Your task to perform on an android device: install app "Upside-Cash back on gas & food" Image 0: 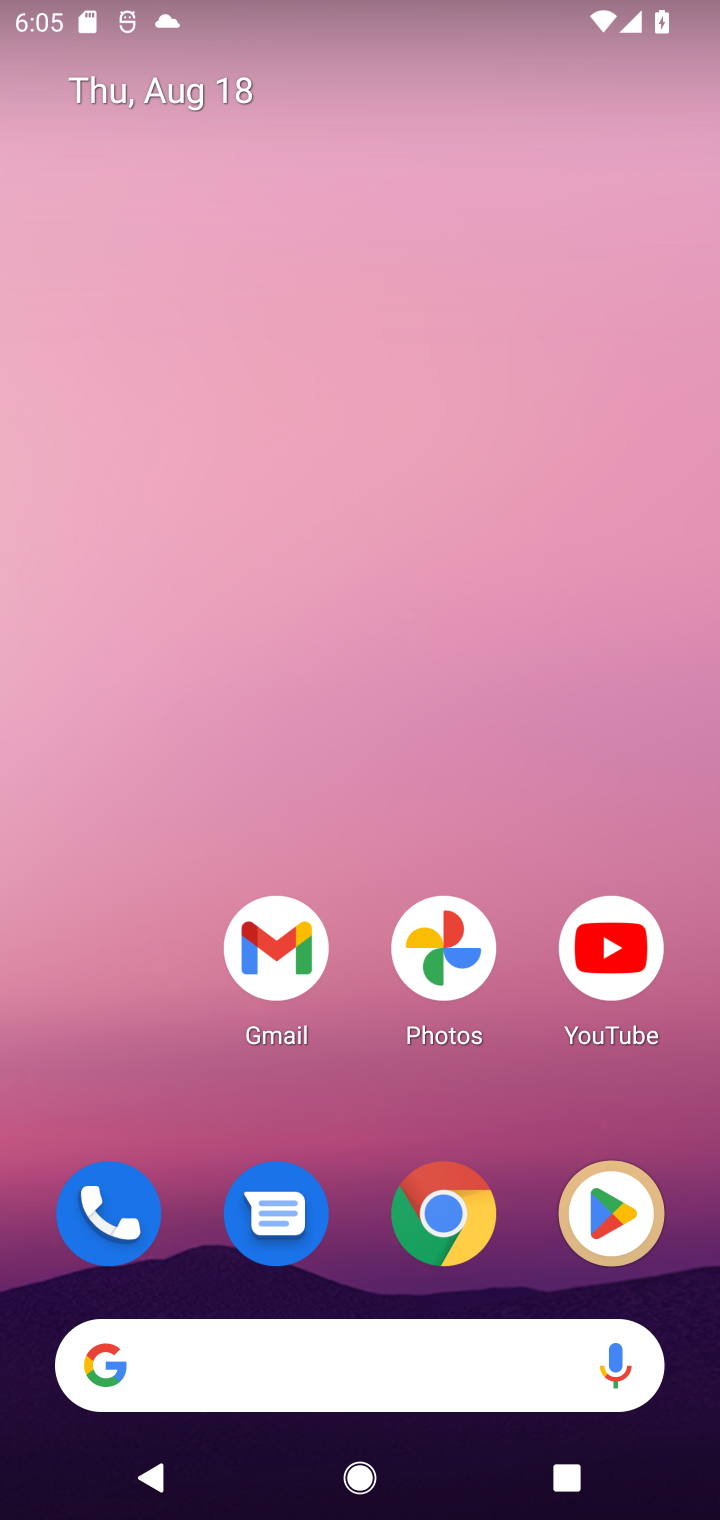
Step 0: press home button
Your task to perform on an android device: install app "Upside-Cash back on gas & food" Image 1: 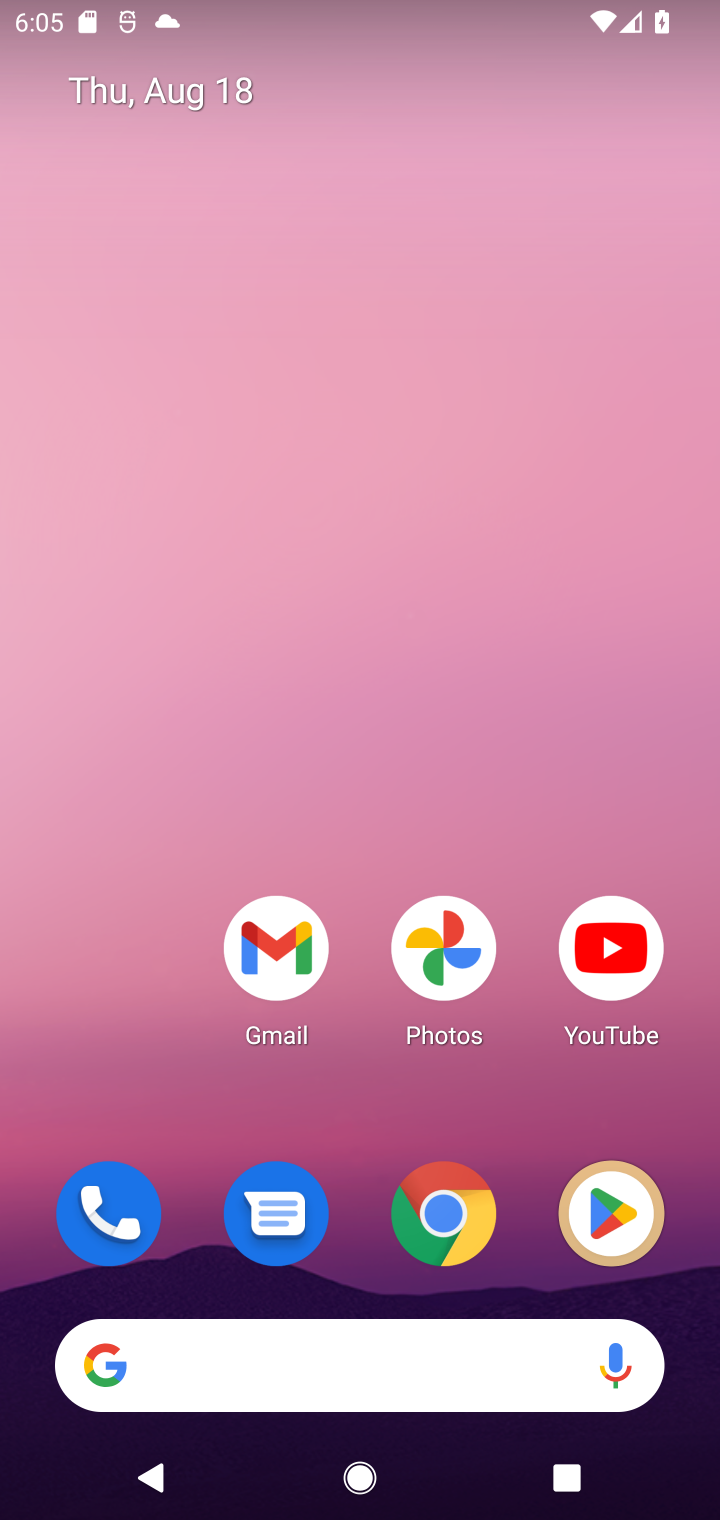
Step 1: click (606, 1201)
Your task to perform on an android device: install app "Upside-Cash back on gas & food" Image 2: 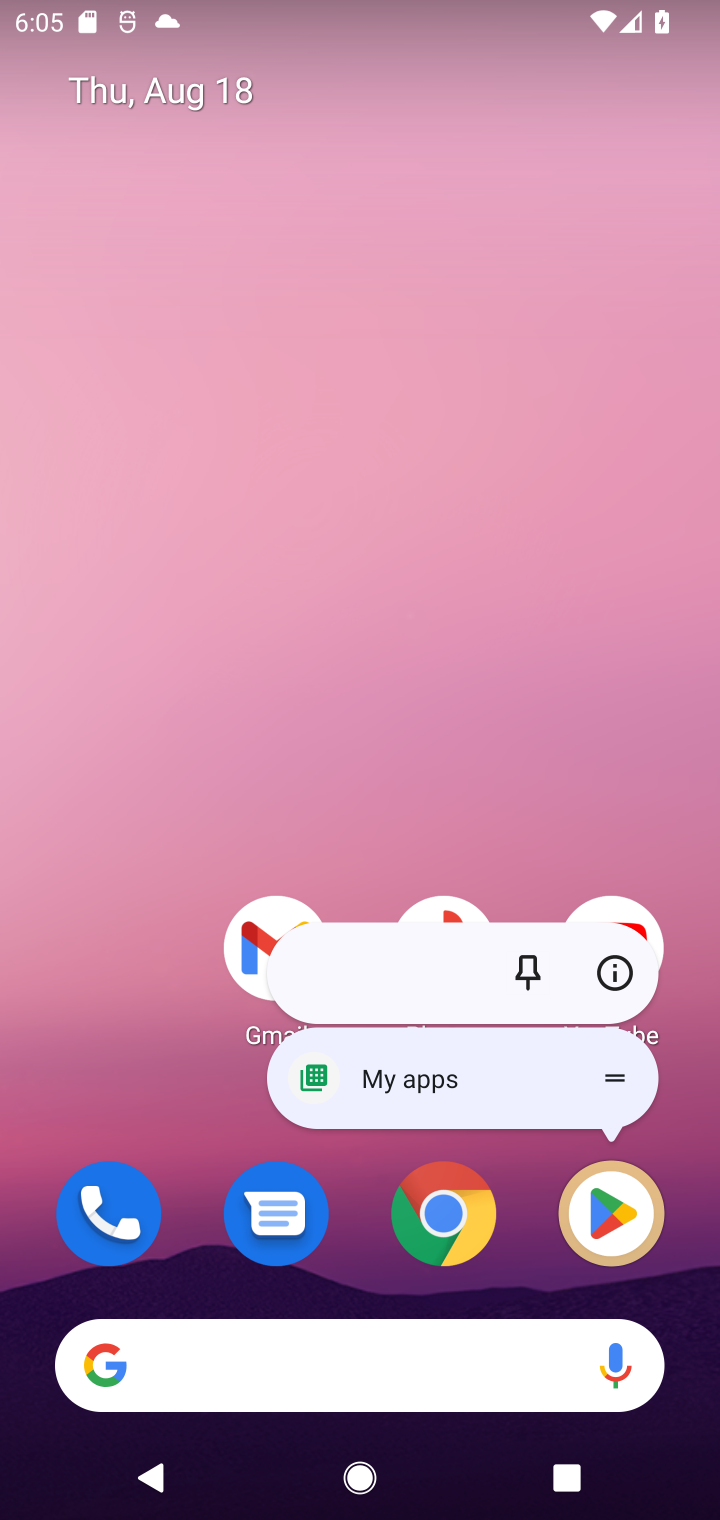
Step 2: click (610, 1212)
Your task to perform on an android device: install app "Upside-Cash back on gas & food" Image 3: 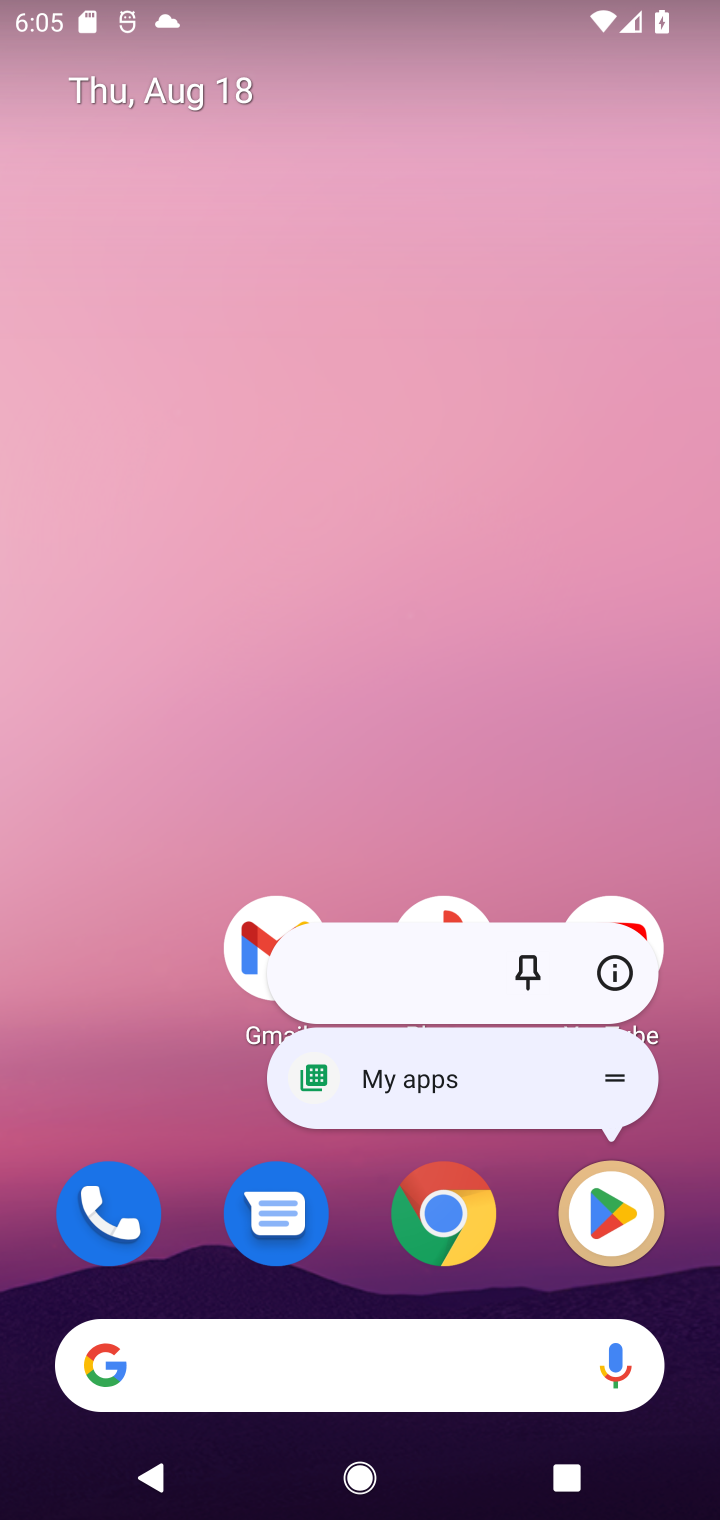
Step 3: click (603, 1203)
Your task to perform on an android device: install app "Upside-Cash back on gas & food" Image 4: 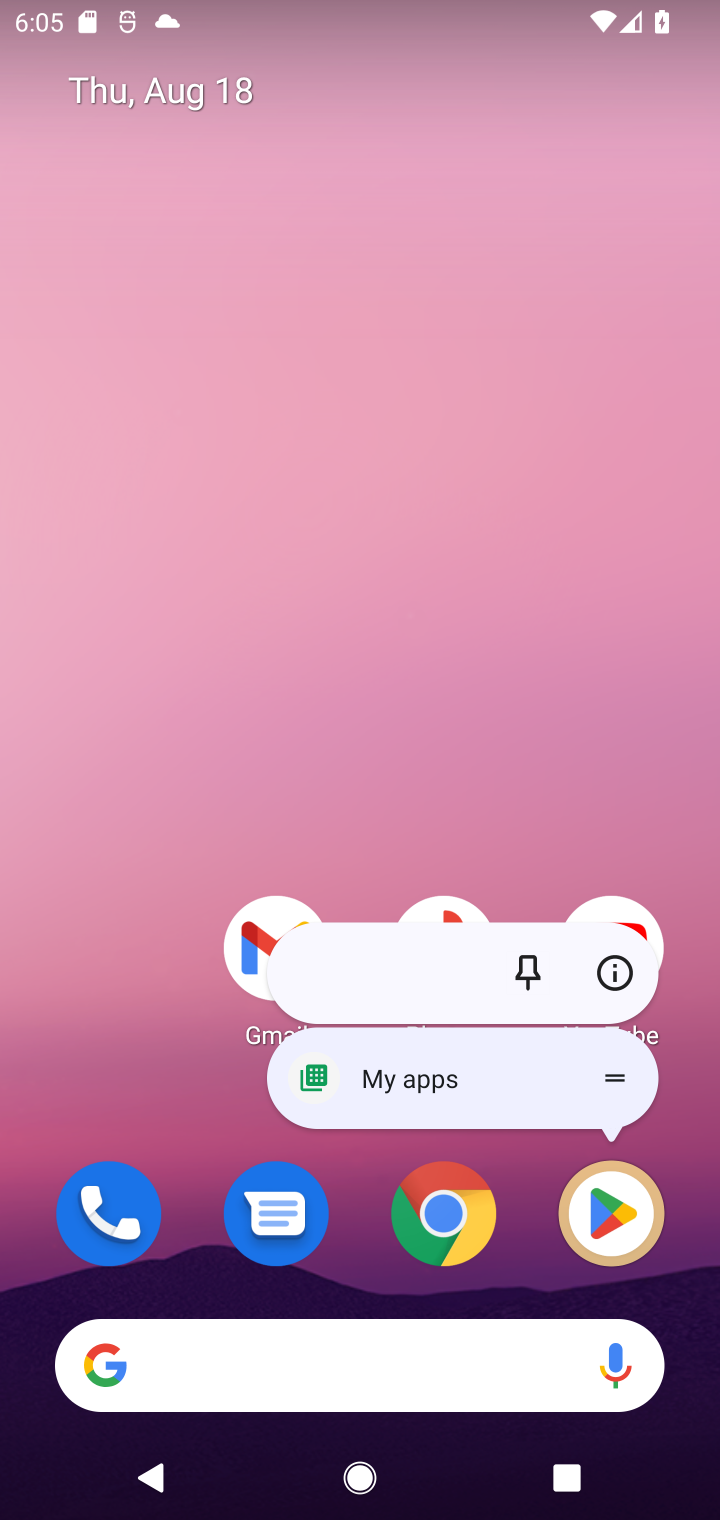
Step 4: click (618, 597)
Your task to perform on an android device: install app "Upside-Cash back on gas & food" Image 5: 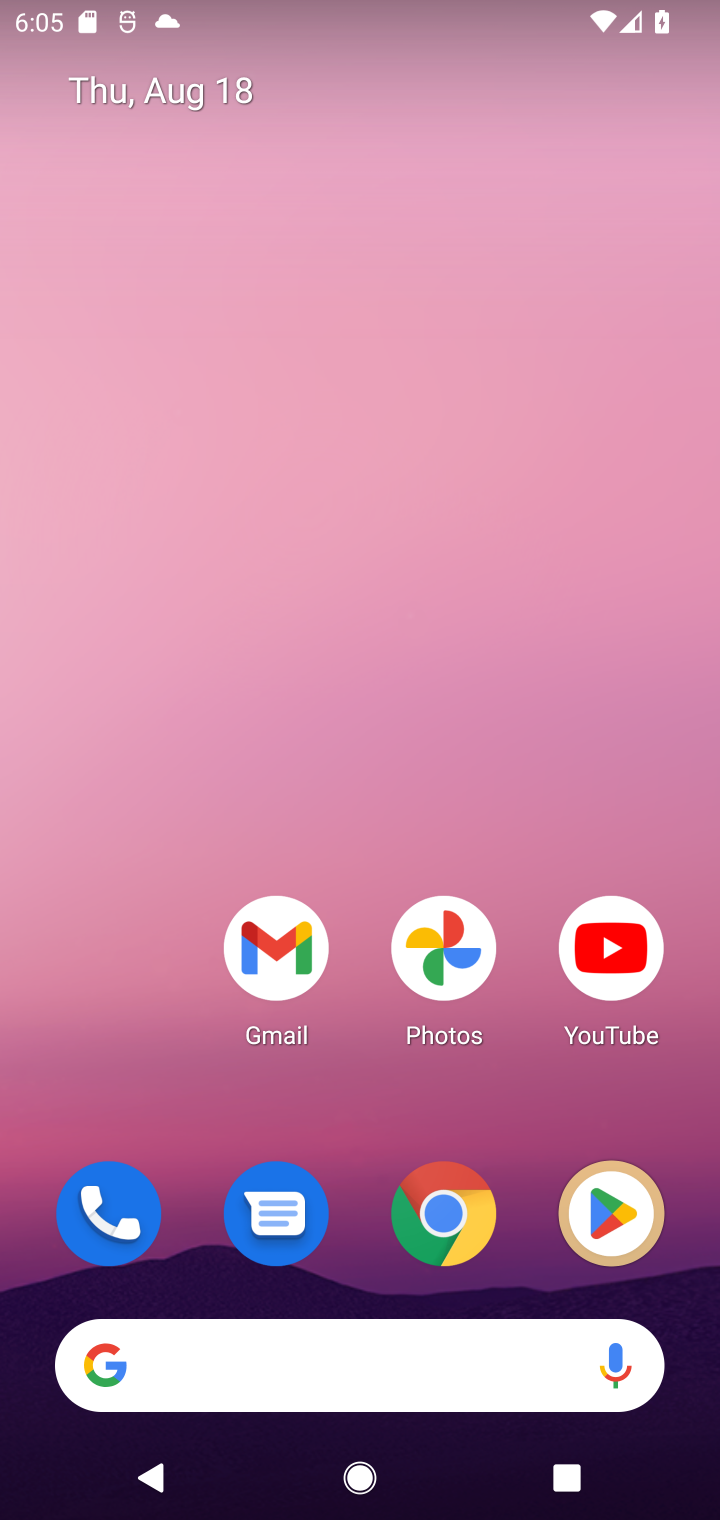
Step 5: drag from (162, 1097) to (108, 163)
Your task to perform on an android device: install app "Upside-Cash back on gas & food" Image 6: 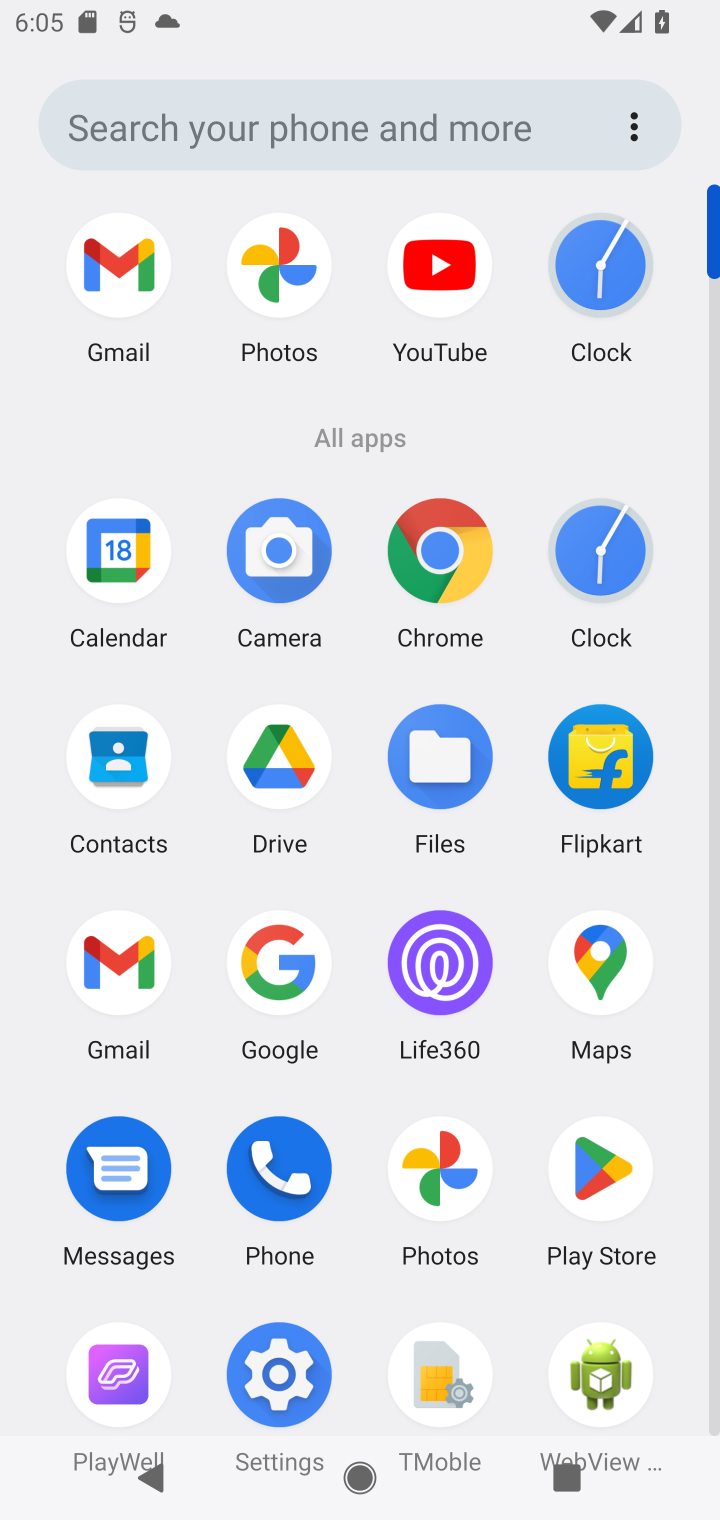
Step 6: click (588, 1151)
Your task to perform on an android device: install app "Upside-Cash back on gas & food" Image 7: 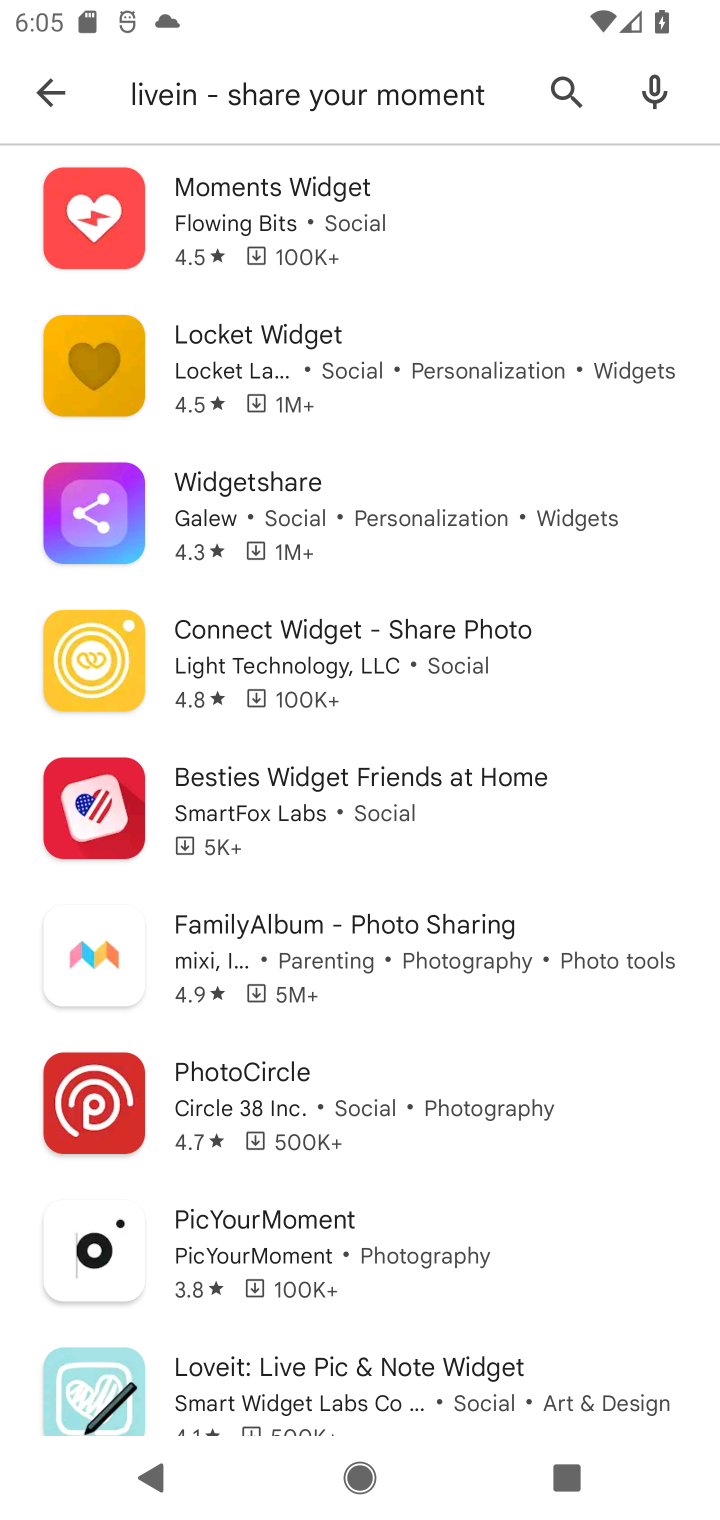
Step 7: click (563, 81)
Your task to perform on an android device: install app "Upside-Cash back on gas & food" Image 8: 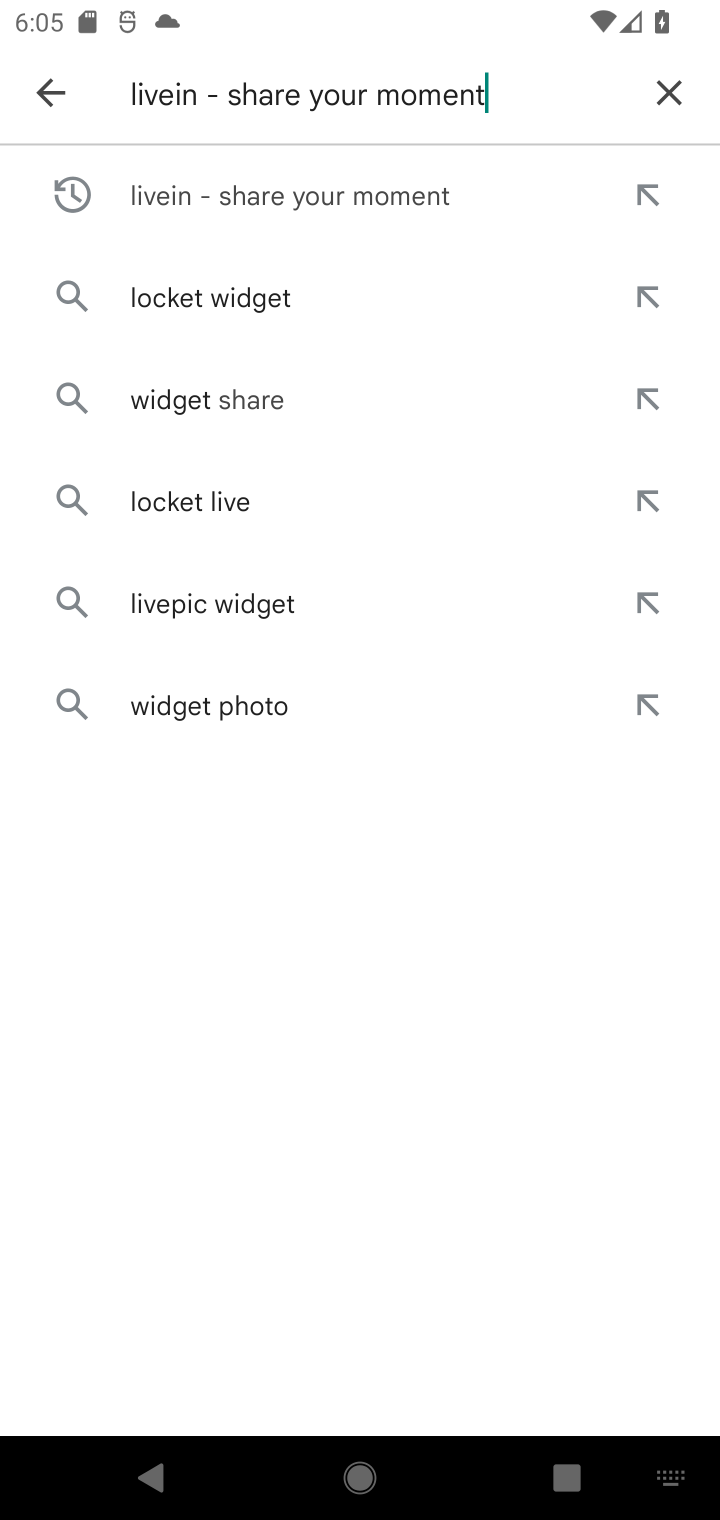
Step 8: click (656, 94)
Your task to perform on an android device: install app "Upside-Cash back on gas & food" Image 9: 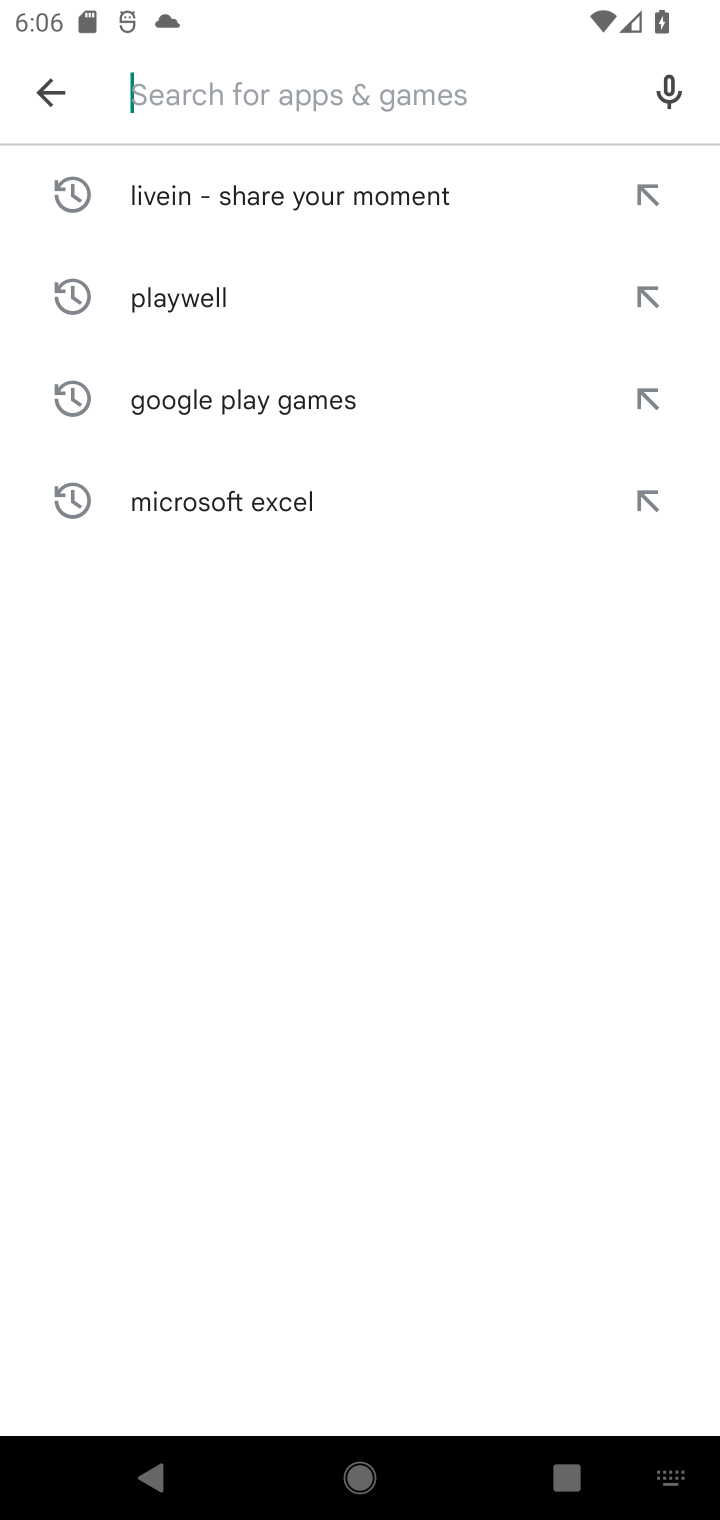
Step 9: type "Upside-Cash back on gas & food"
Your task to perform on an android device: install app "Upside-Cash back on gas & food" Image 10: 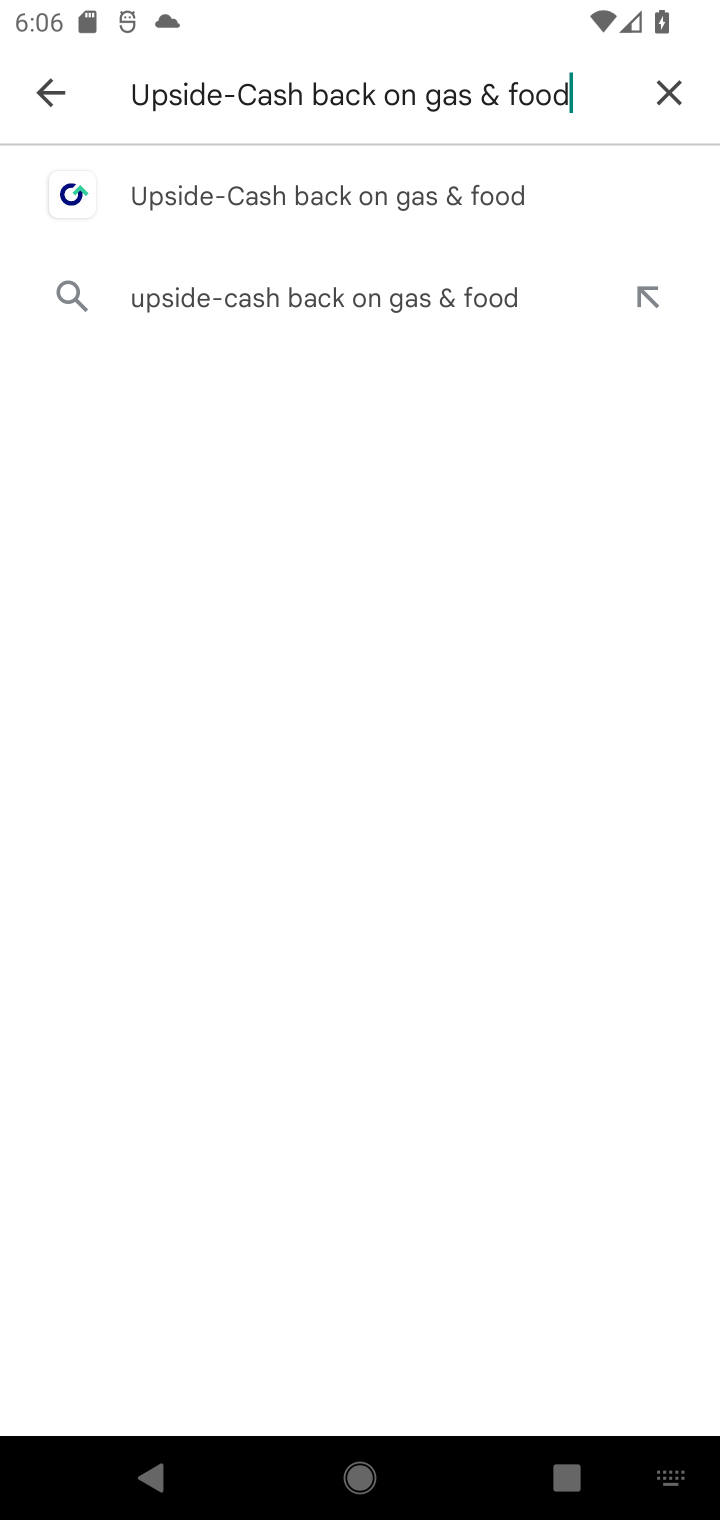
Step 10: click (132, 189)
Your task to perform on an android device: install app "Upside-Cash back on gas & food" Image 11: 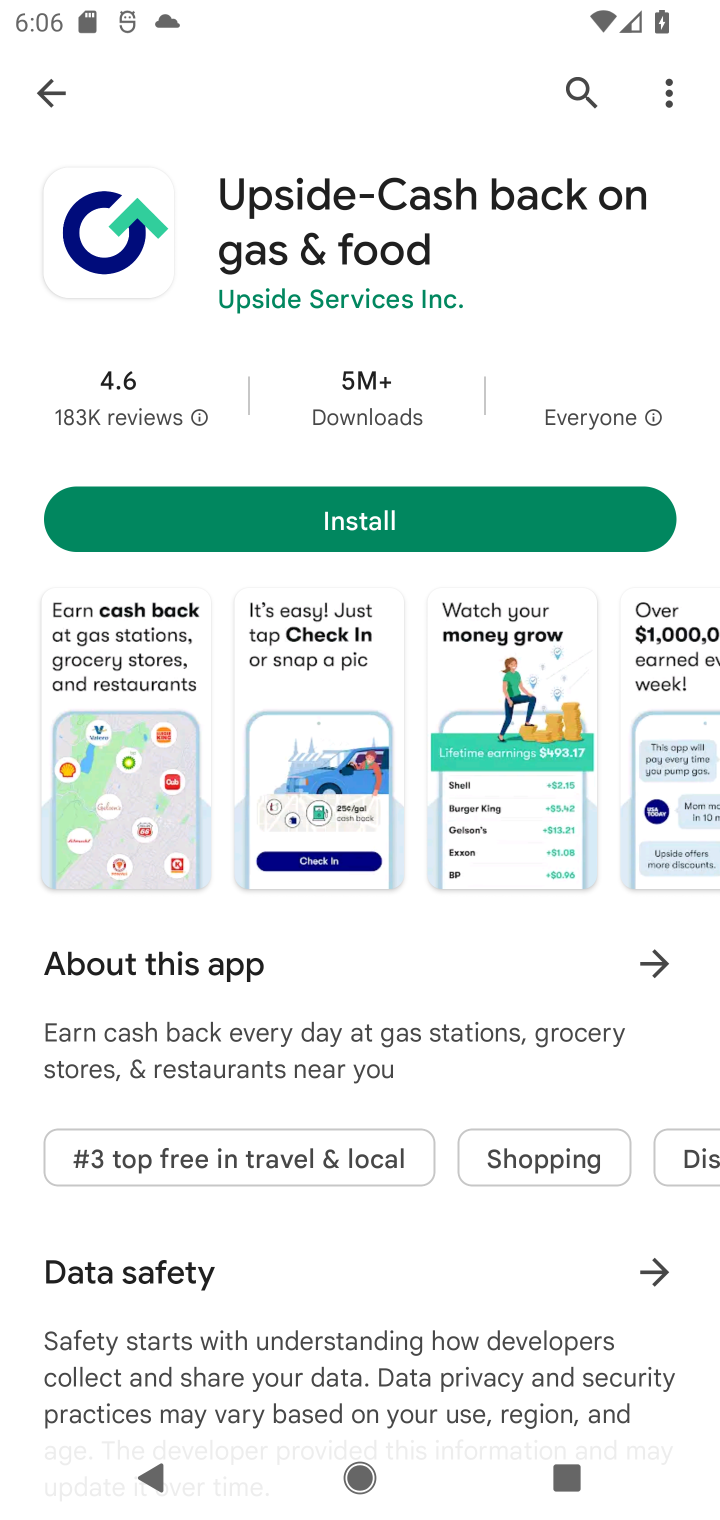
Step 11: click (349, 515)
Your task to perform on an android device: install app "Upside-Cash back on gas & food" Image 12: 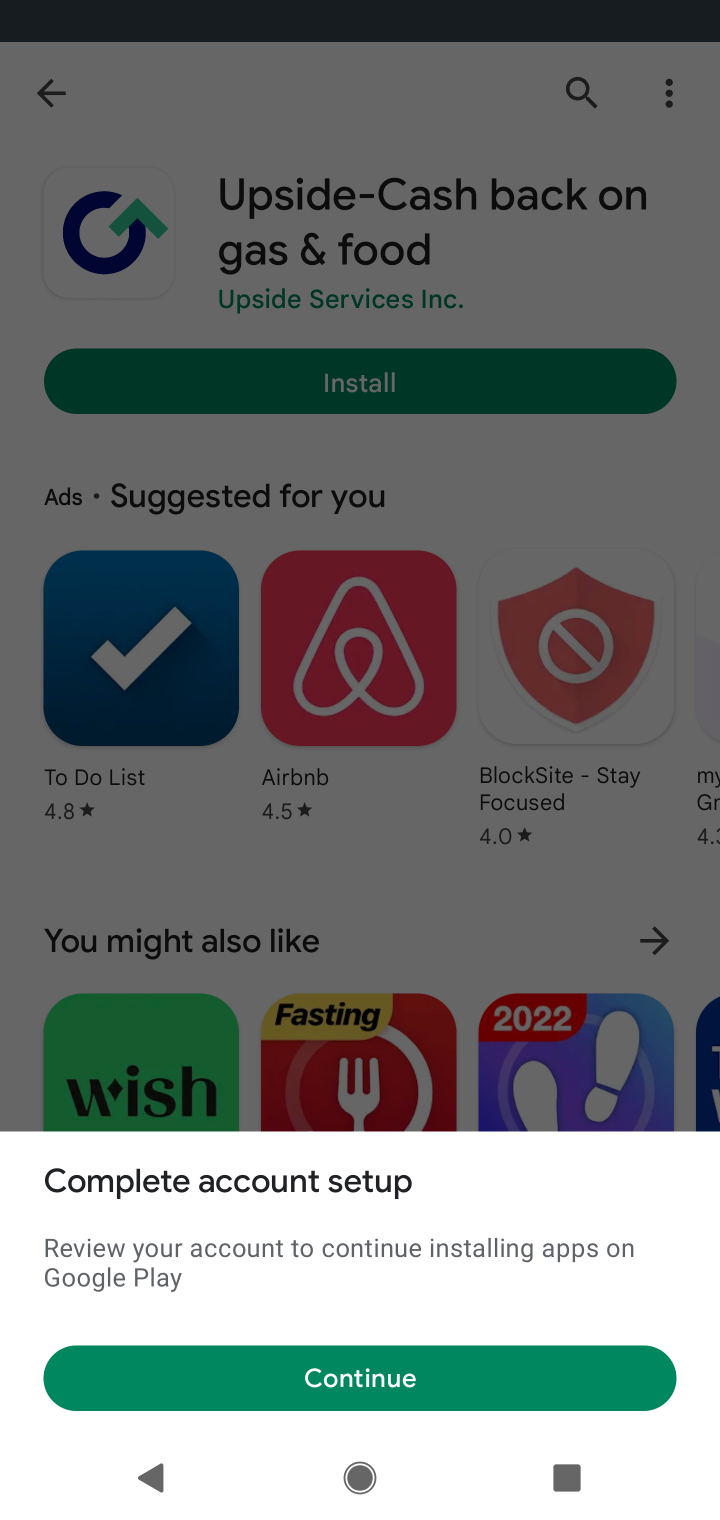
Step 12: click (319, 1385)
Your task to perform on an android device: install app "Upside-Cash back on gas & food" Image 13: 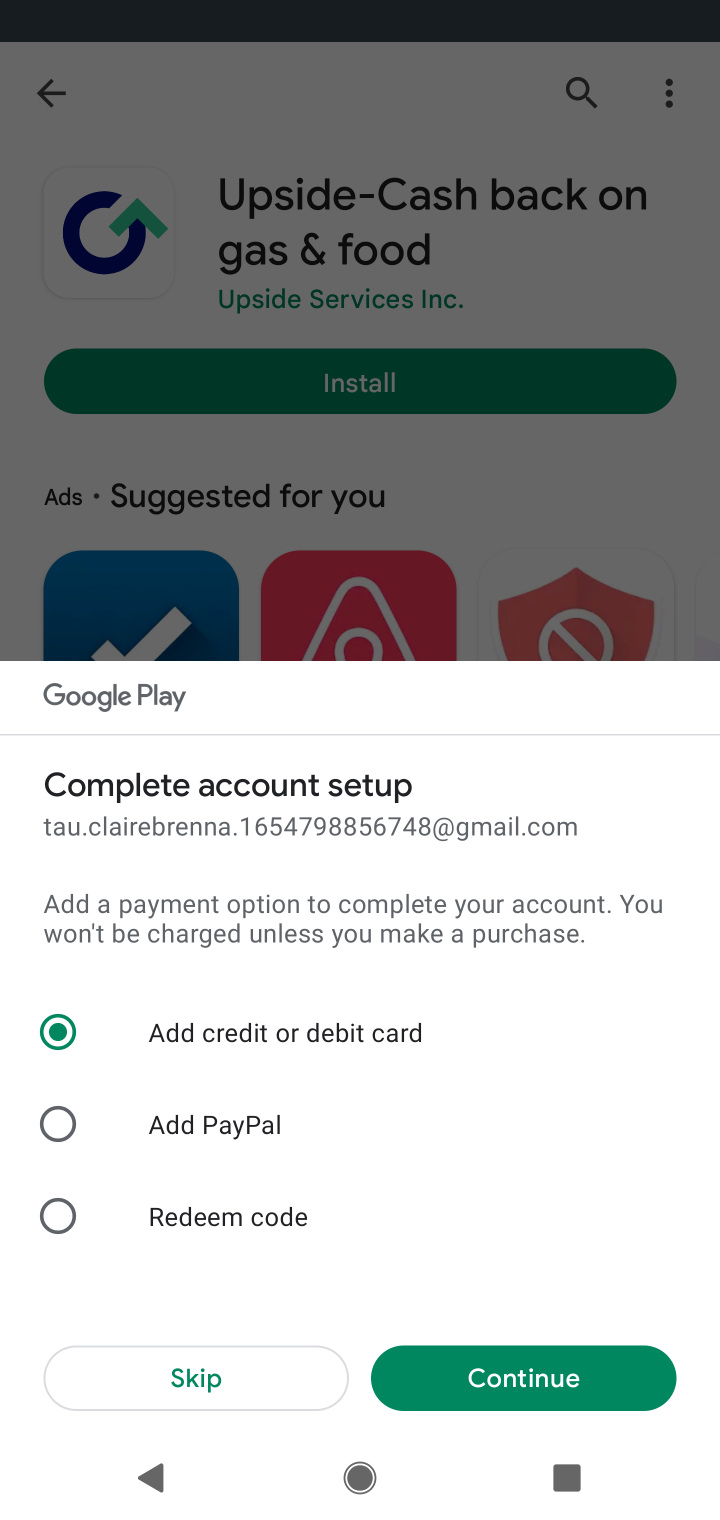
Step 13: click (213, 1376)
Your task to perform on an android device: install app "Upside-Cash back on gas & food" Image 14: 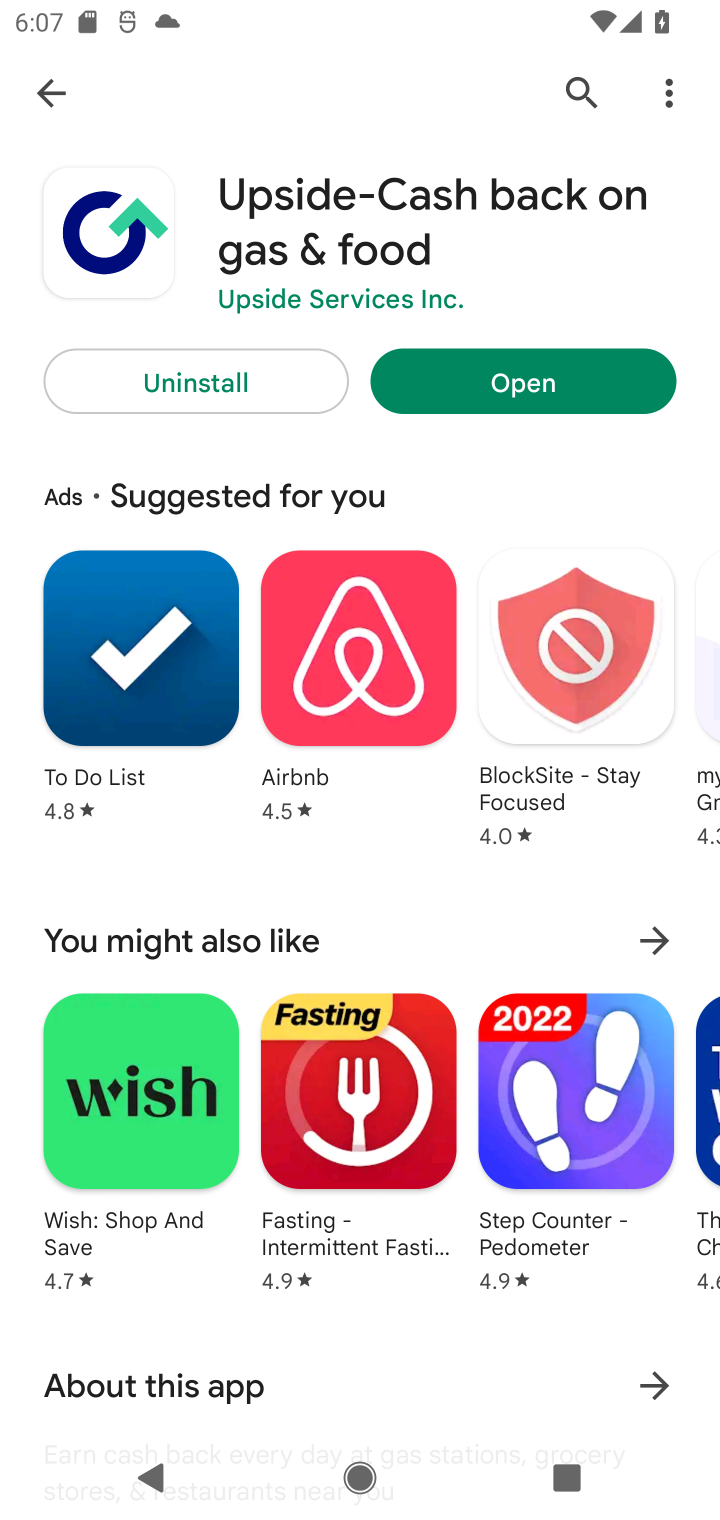
Step 14: click (528, 373)
Your task to perform on an android device: install app "Upside-Cash back on gas & food" Image 15: 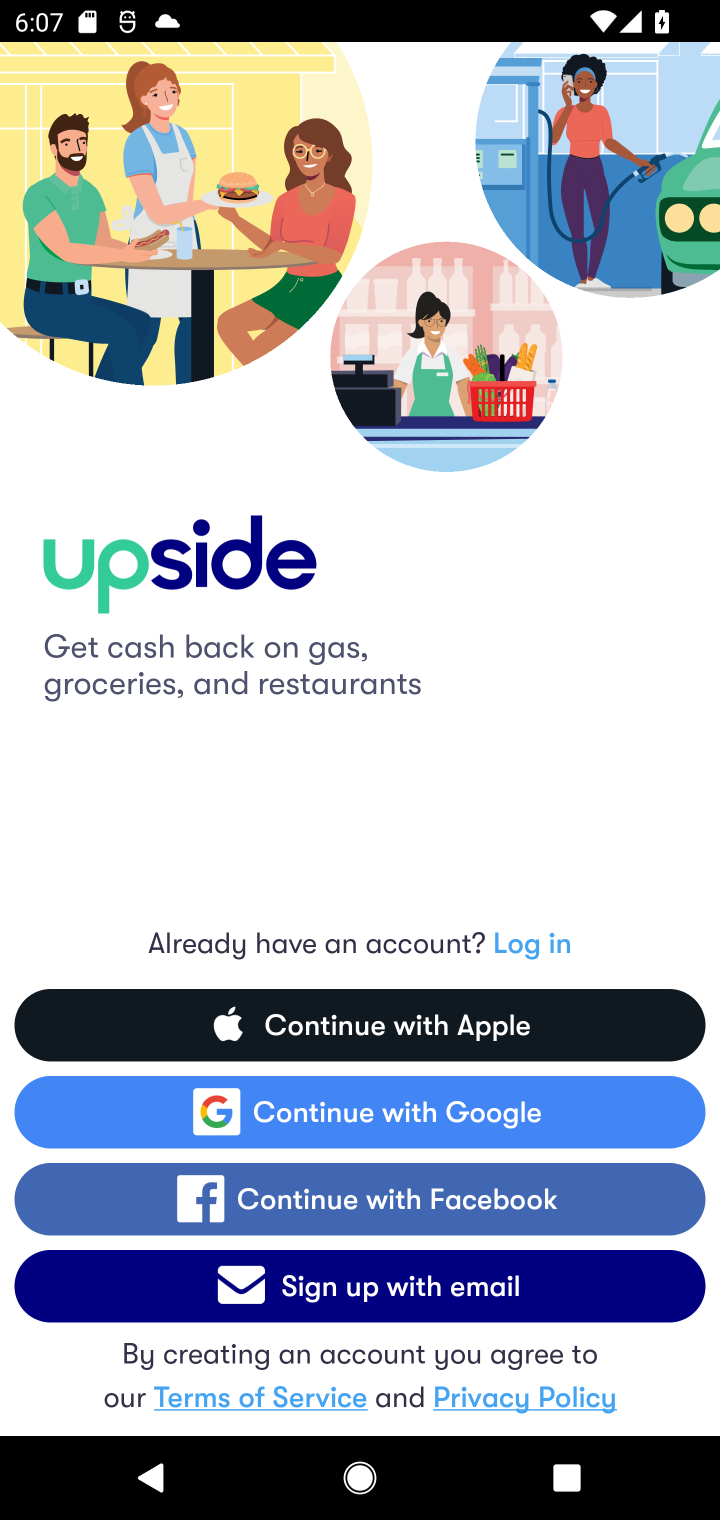
Step 15: click (371, 1106)
Your task to perform on an android device: install app "Upside-Cash back on gas & food" Image 16: 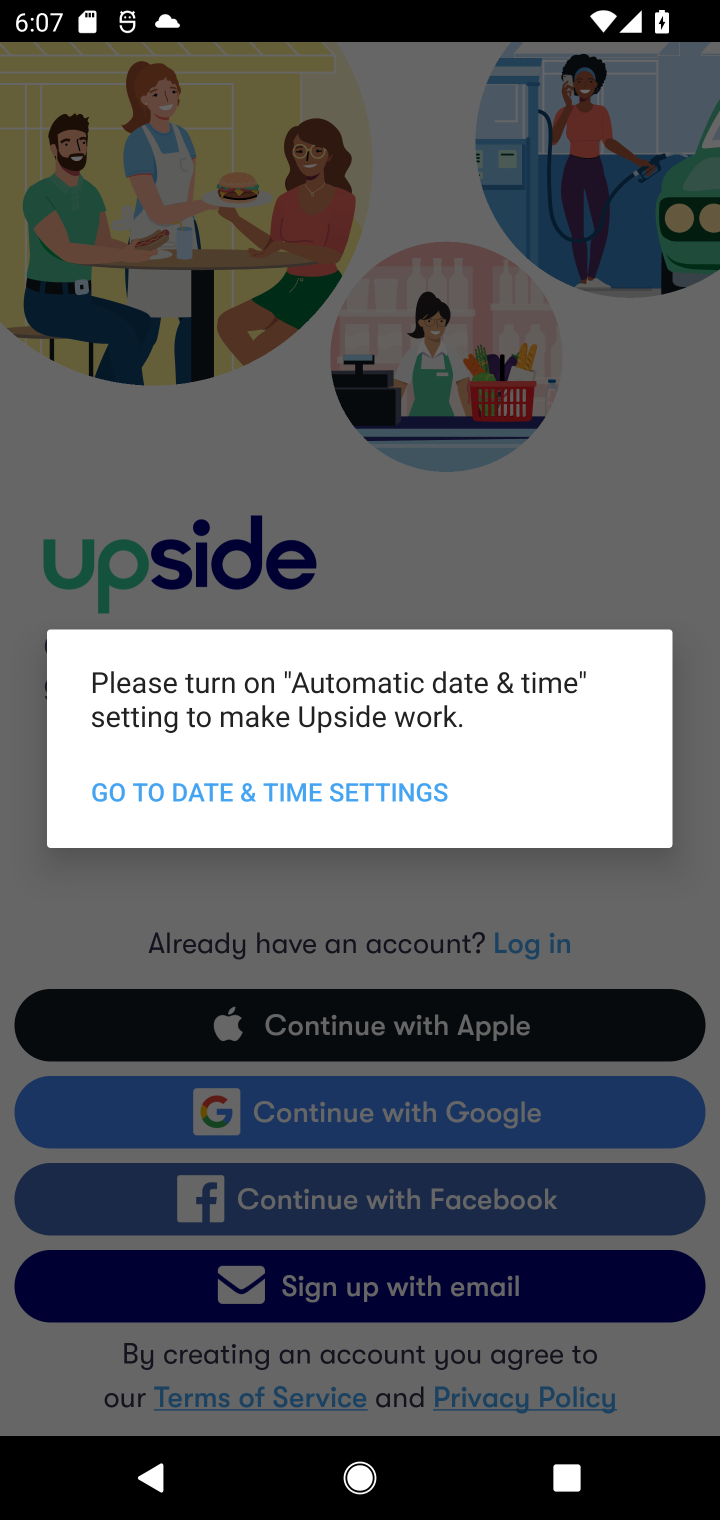
Step 16: click (260, 799)
Your task to perform on an android device: install app "Upside-Cash back on gas & food" Image 17: 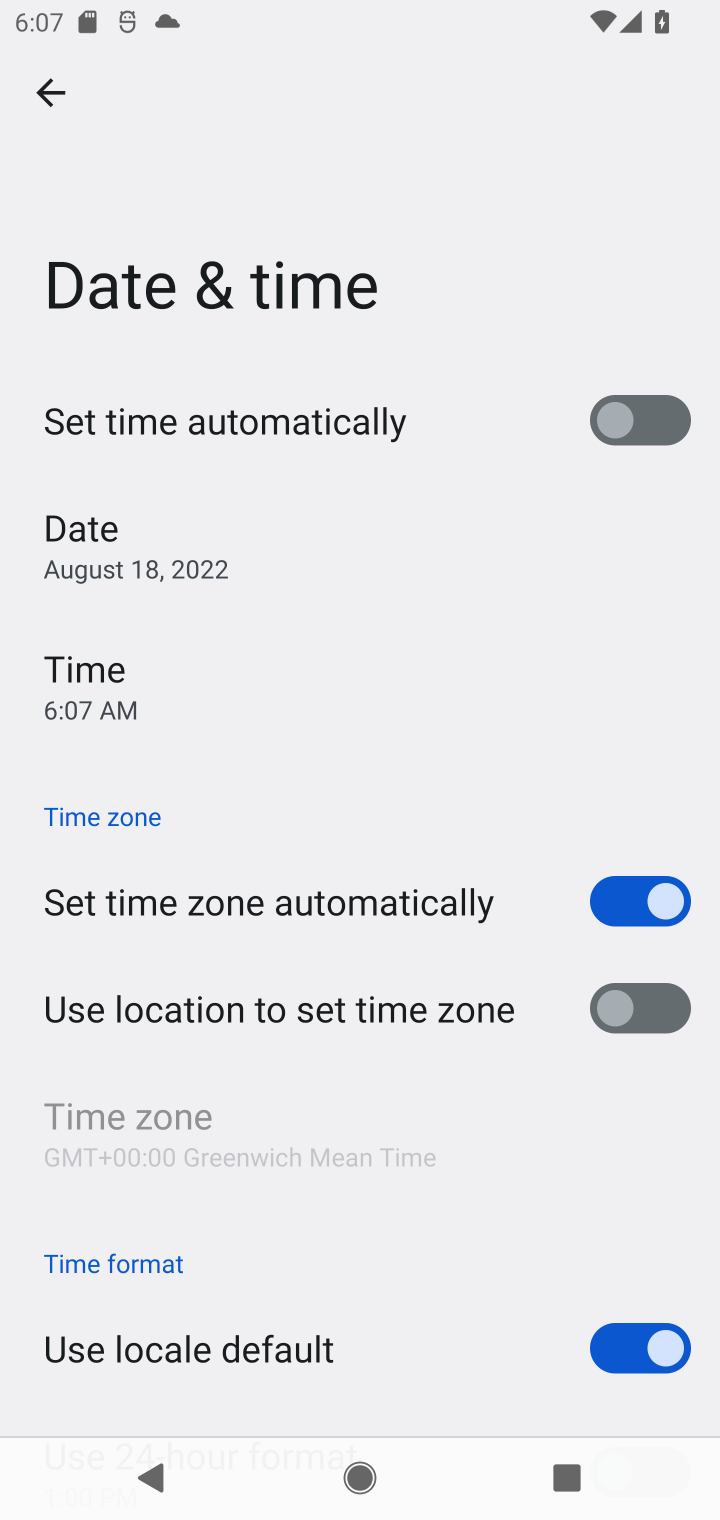
Step 17: click (654, 419)
Your task to perform on an android device: install app "Upside-Cash back on gas & food" Image 18: 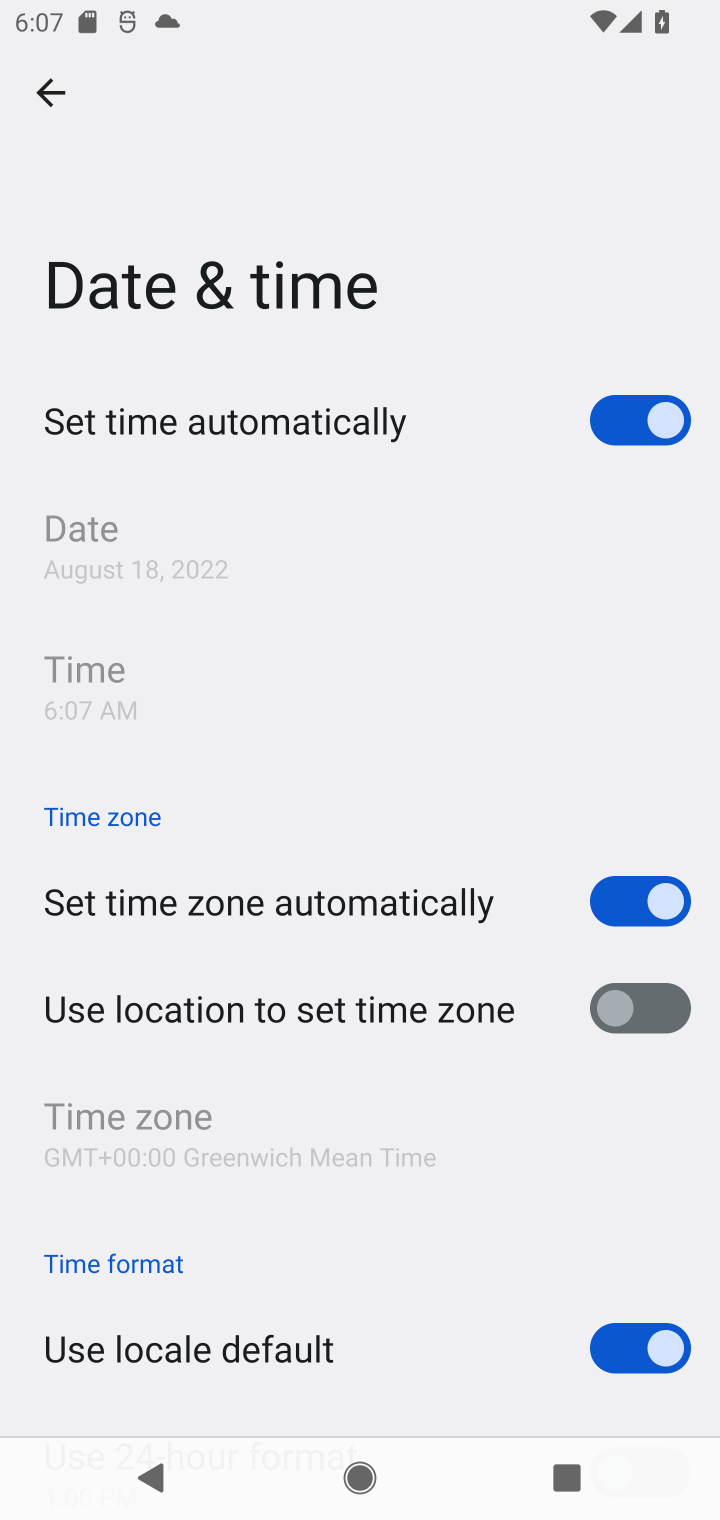
Step 18: click (14, 78)
Your task to perform on an android device: install app "Upside-Cash back on gas & food" Image 19: 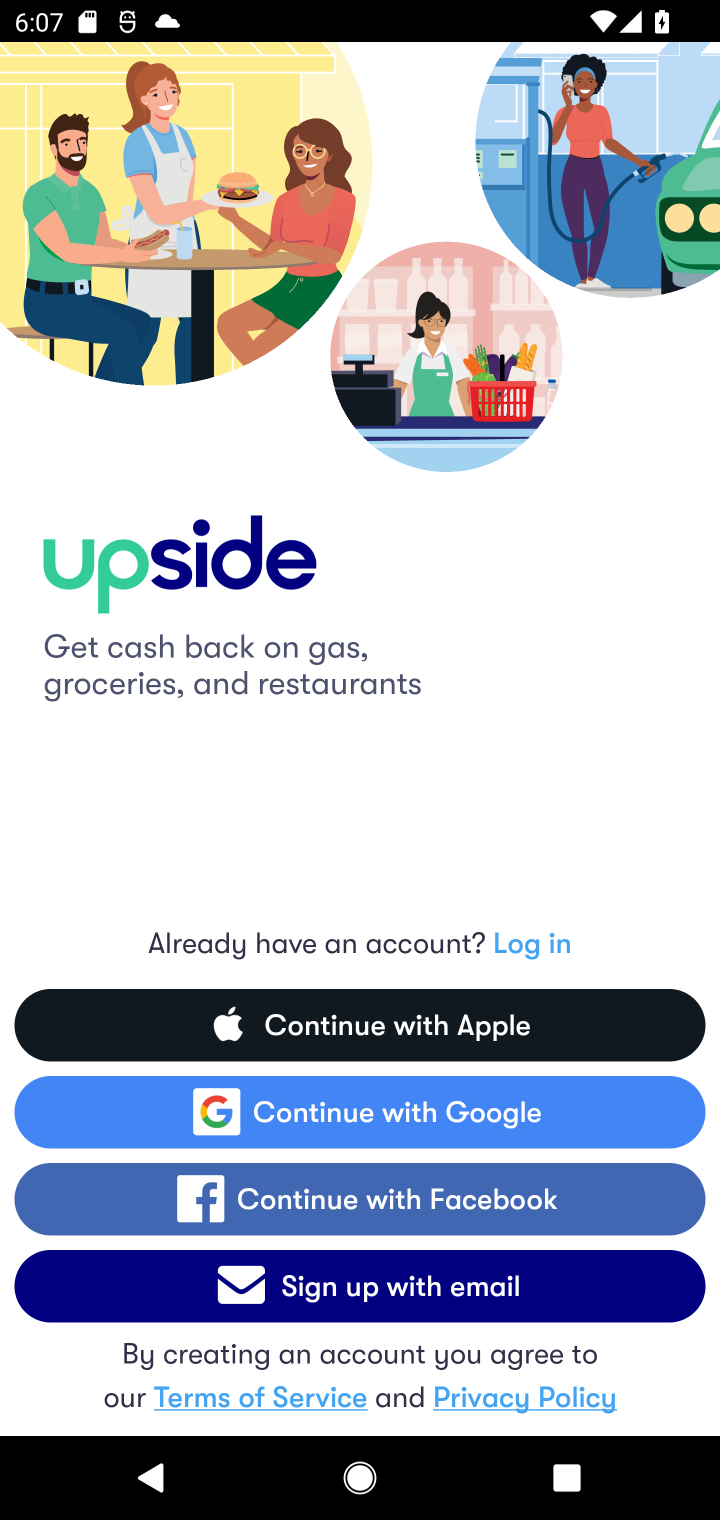
Step 19: click (393, 1112)
Your task to perform on an android device: install app "Upside-Cash back on gas & food" Image 20: 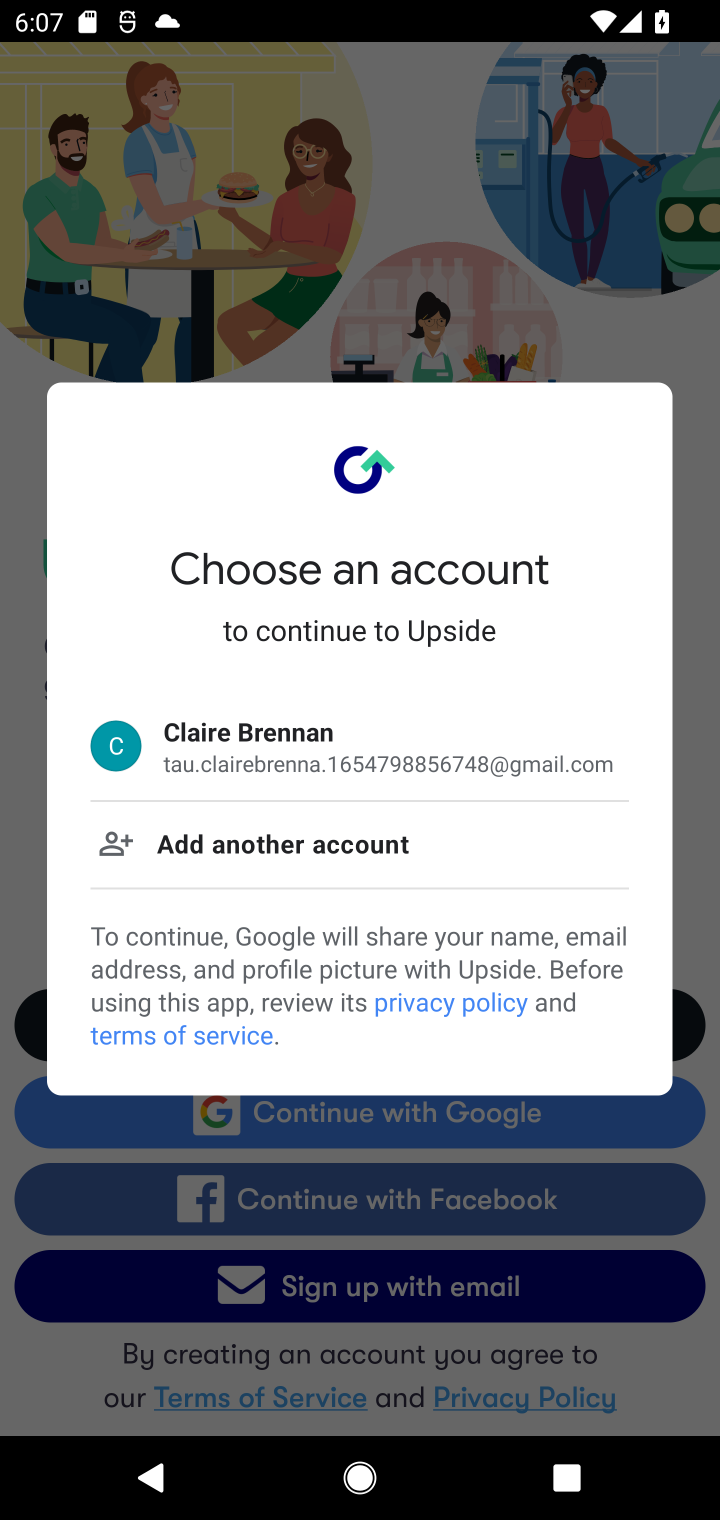
Step 20: click (342, 749)
Your task to perform on an android device: install app "Upside-Cash back on gas & food" Image 21: 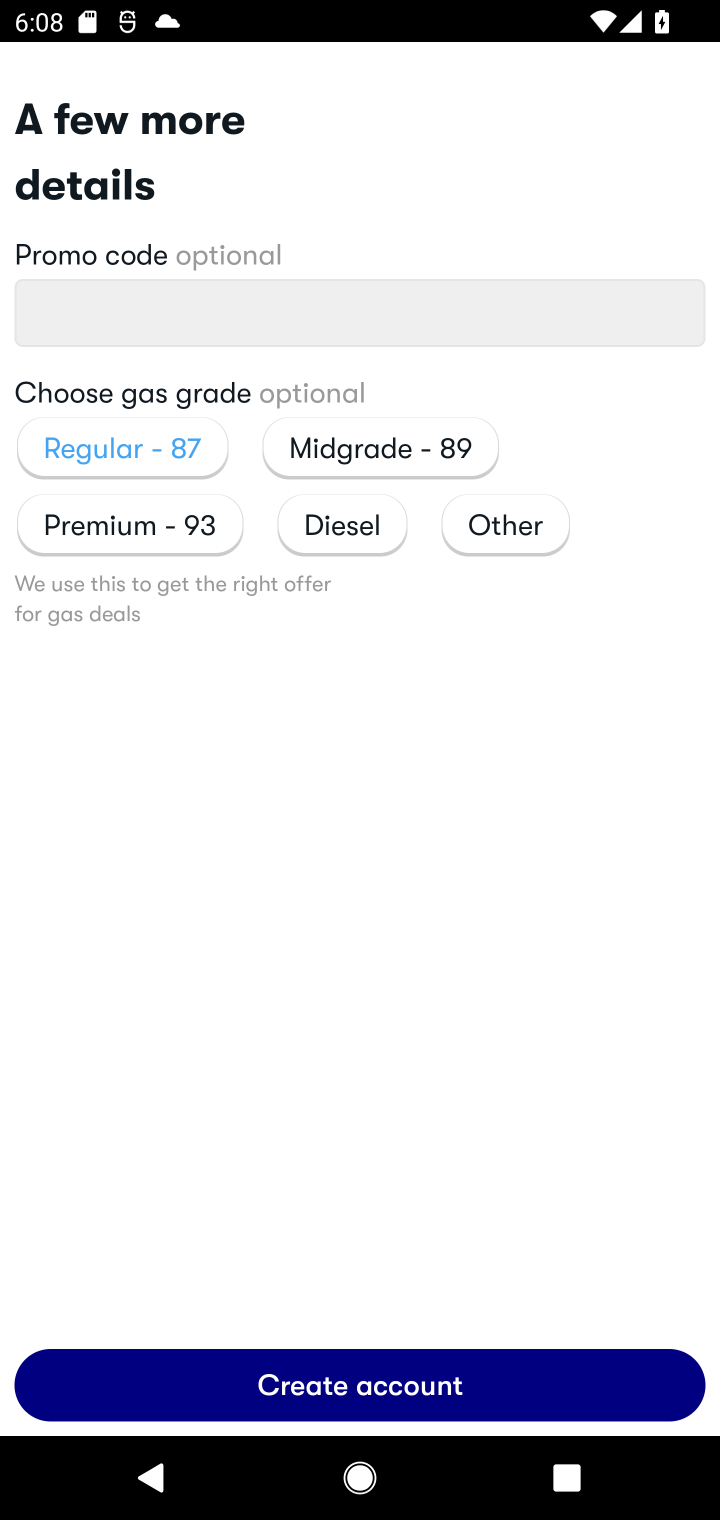
Step 21: task complete